Your task to perform on an android device: Go to settings Image 0: 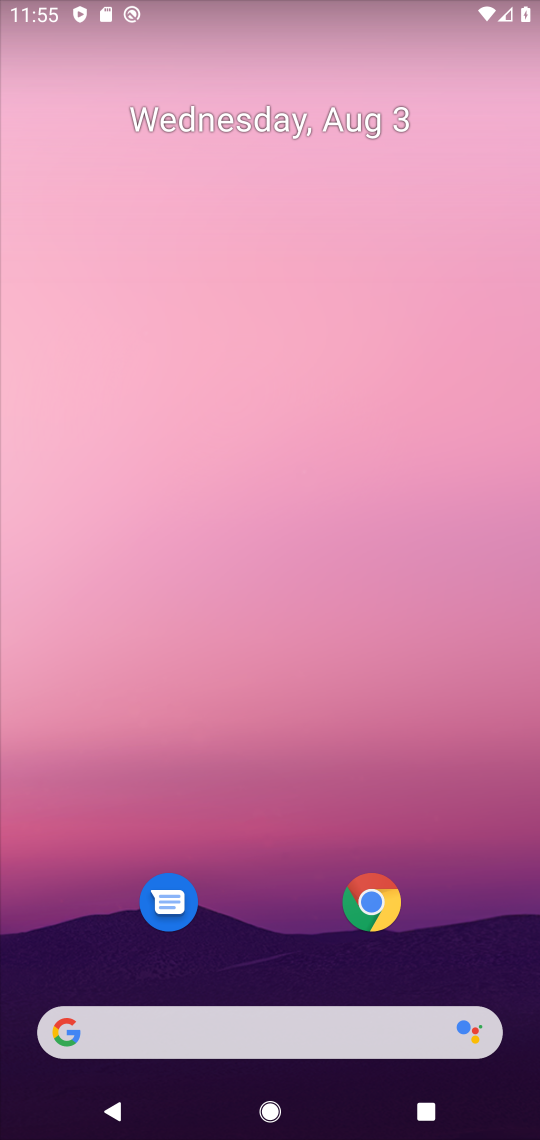
Step 0: drag from (507, 953) to (410, 285)
Your task to perform on an android device: Go to settings Image 1: 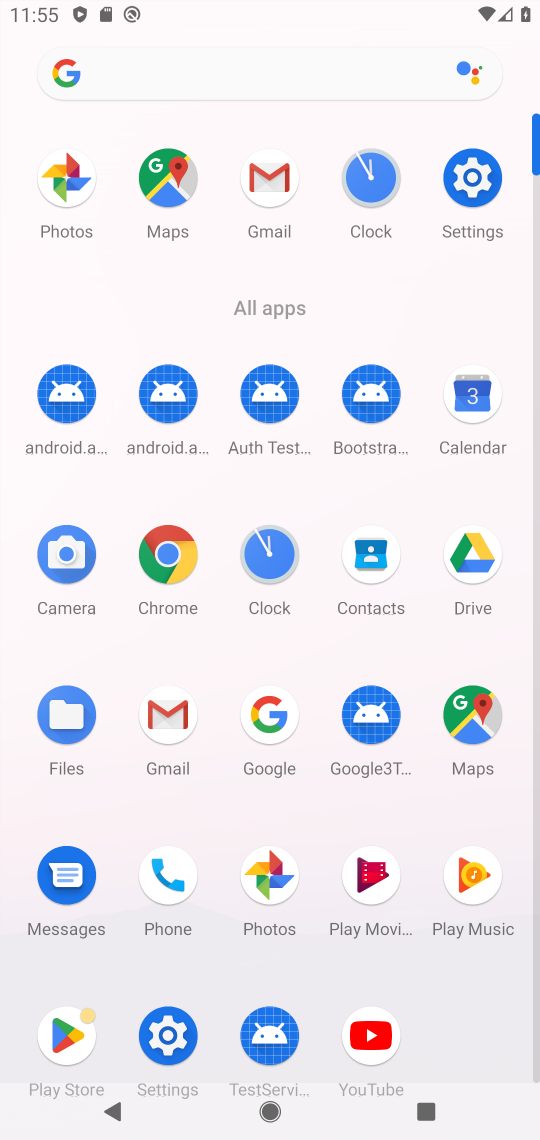
Step 1: click (170, 1039)
Your task to perform on an android device: Go to settings Image 2: 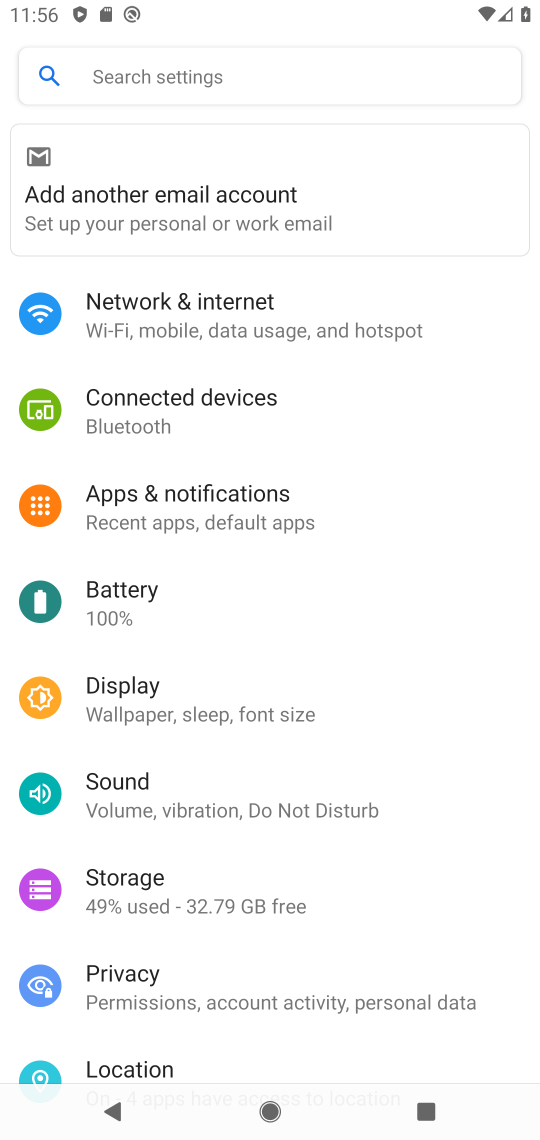
Step 2: task complete